Your task to perform on an android device: Go to eBay Image 0: 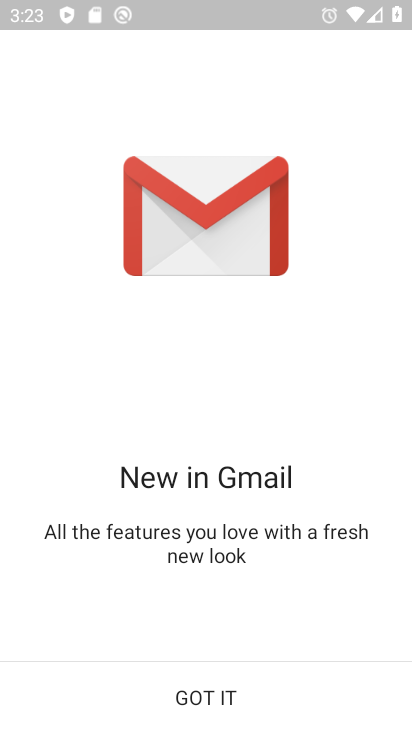
Step 0: press home button
Your task to perform on an android device: Go to eBay Image 1: 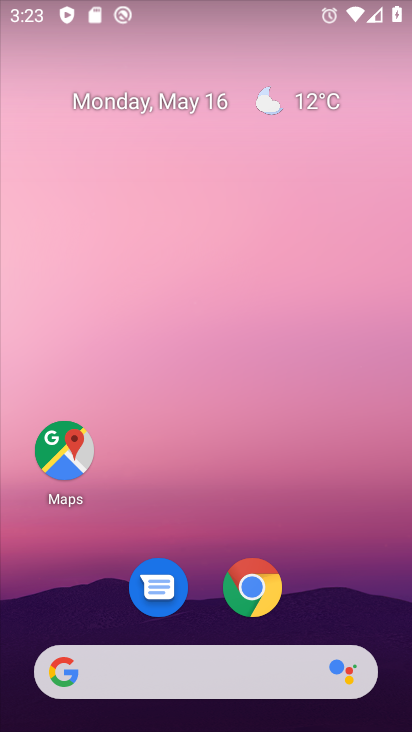
Step 1: click (244, 583)
Your task to perform on an android device: Go to eBay Image 2: 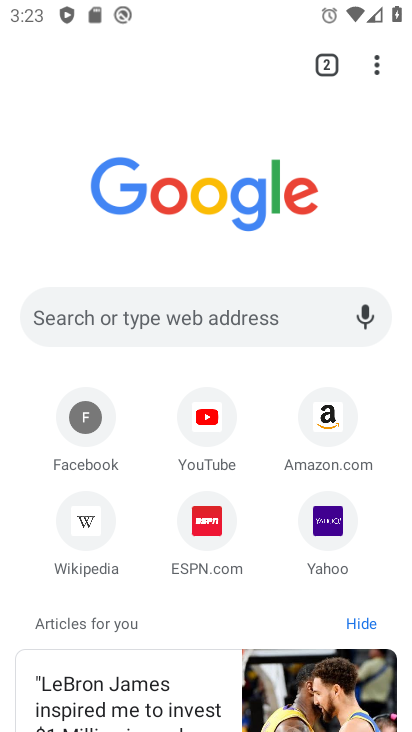
Step 2: click (173, 320)
Your task to perform on an android device: Go to eBay Image 3: 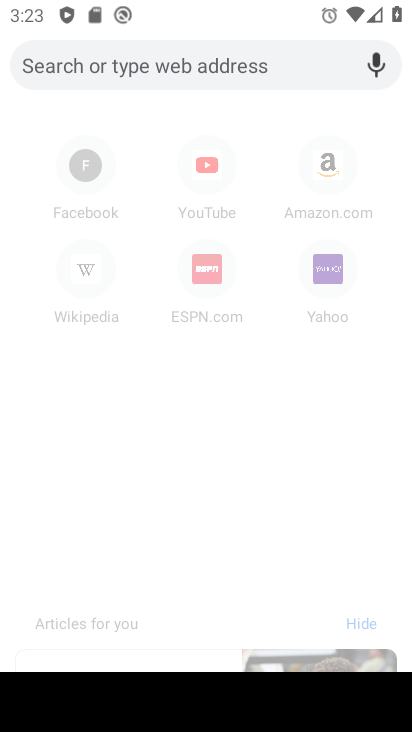
Step 3: type "eBay"
Your task to perform on an android device: Go to eBay Image 4: 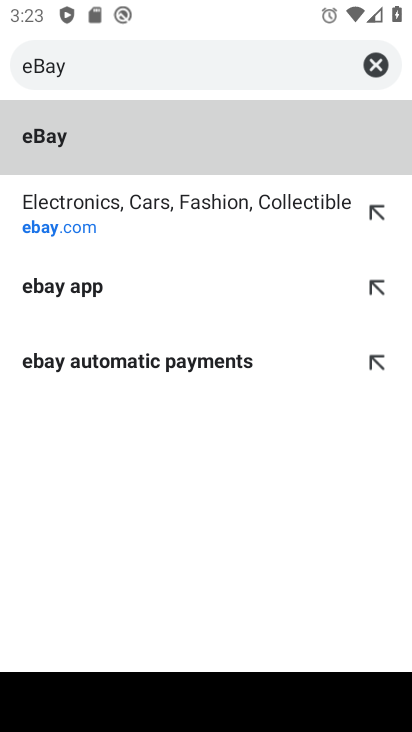
Step 4: click (56, 128)
Your task to perform on an android device: Go to eBay Image 5: 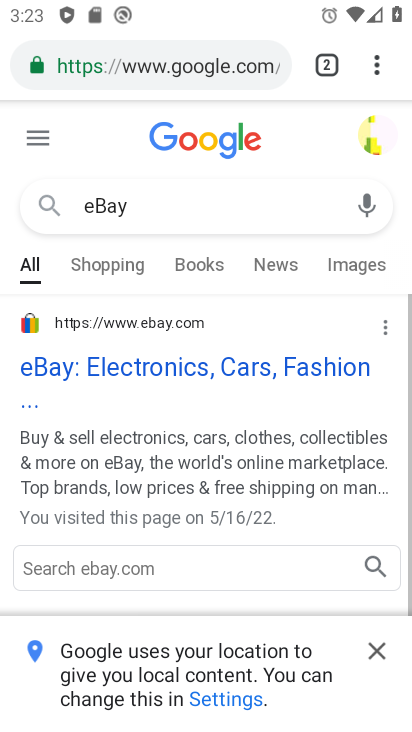
Step 5: task complete